Your task to perform on an android device: What is the news today? Image 0: 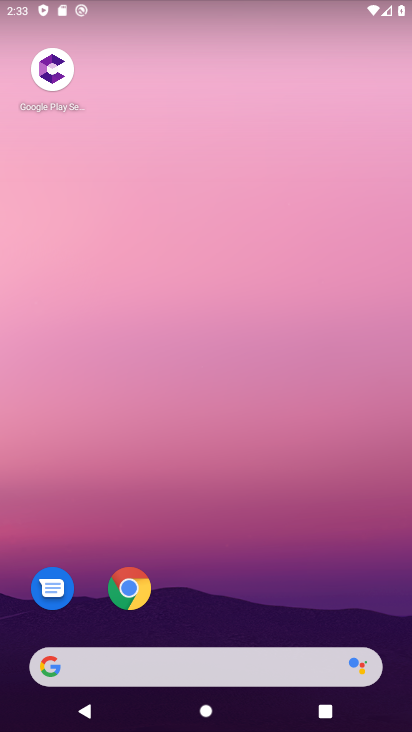
Step 0: click (409, 311)
Your task to perform on an android device: What is the news today? Image 1: 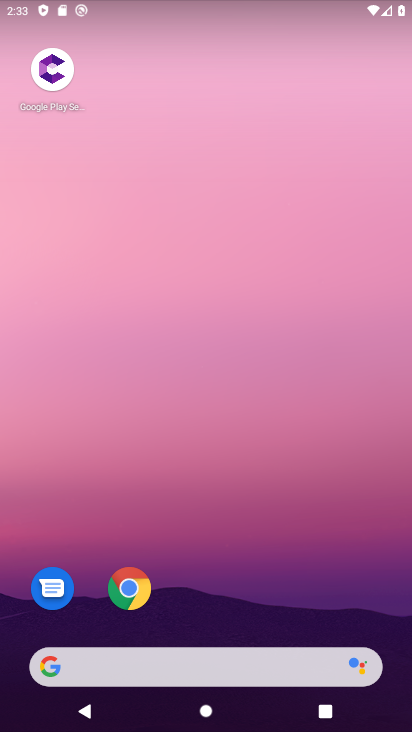
Step 1: task complete